Your task to perform on an android device: toggle notification dots Image 0: 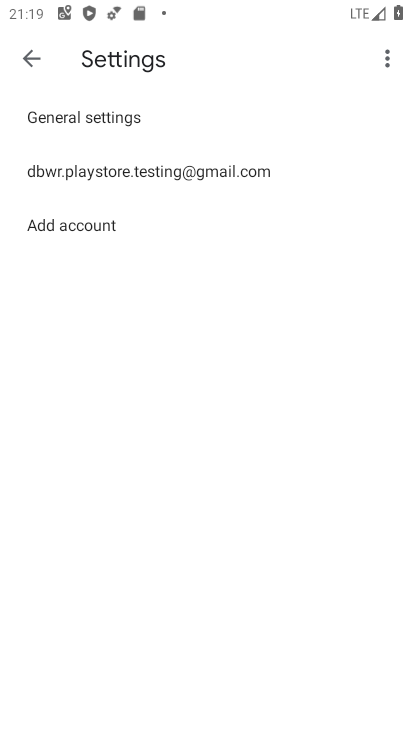
Step 0: press back button
Your task to perform on an android device: toggle notification dots Image 1: 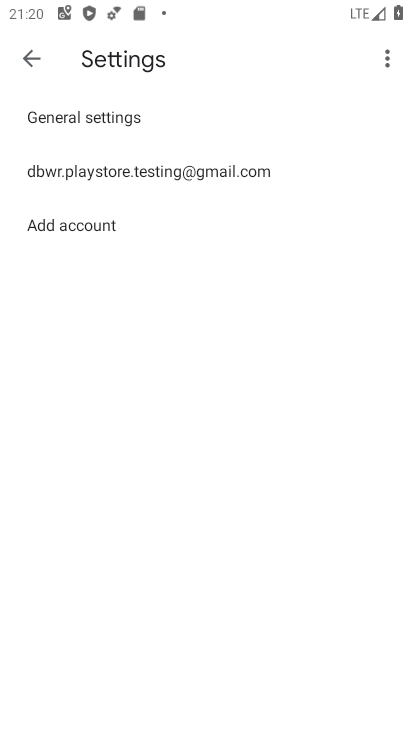
Step 1: press home button
Your task to perform on an android device: toggle notification dots Image 2: 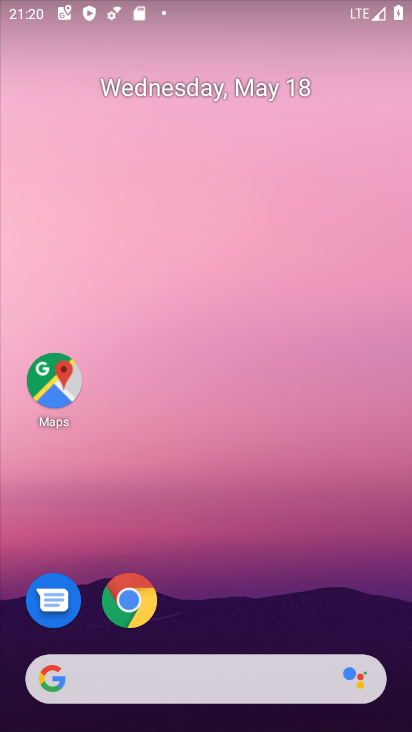
Step 2: drag from (191, 590) to (317, 4)
Your task to perform on an android device: toggle notification dots Image 3: 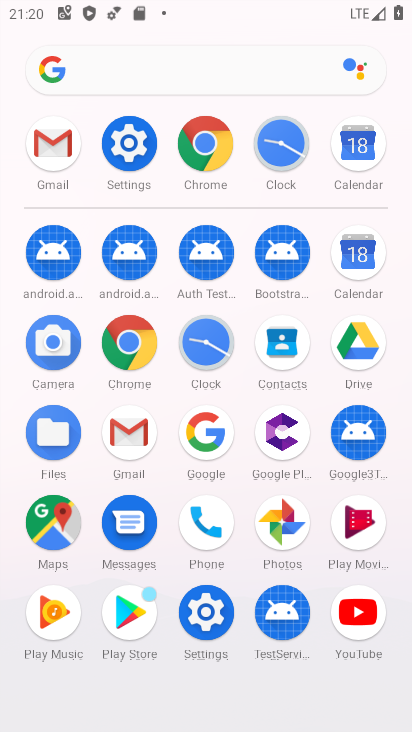
Step 3: click (122, 145)
Your task to perform on an android device: toggle notification dots Image 4: 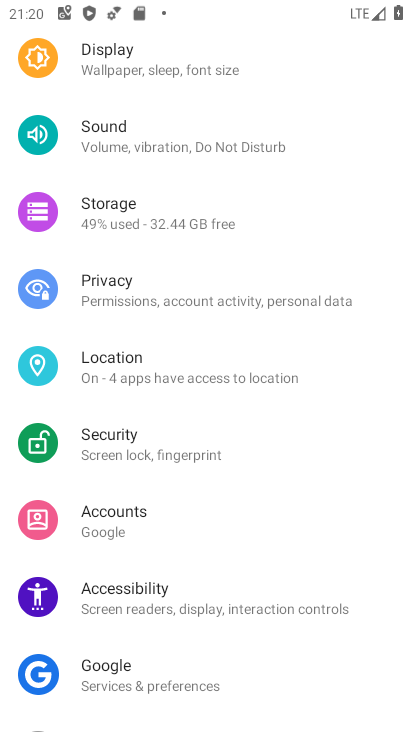
Step 4: drag from (228, 160) to (143, 687)
Your task to perform on an android device: toggle notification dots Image 5: 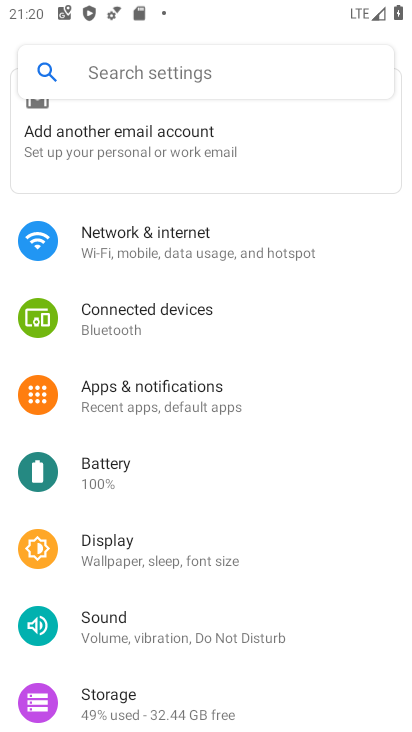
Step 5: click (148, 407)
Your task to perform on an android device: toggle notification dots Image 6: 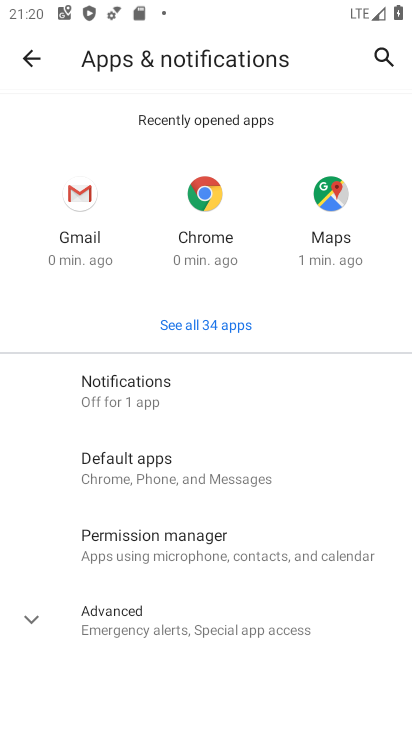
Step 6: click (164, 386)
Your task to perform on an android device: toggle notification dots Image 7: 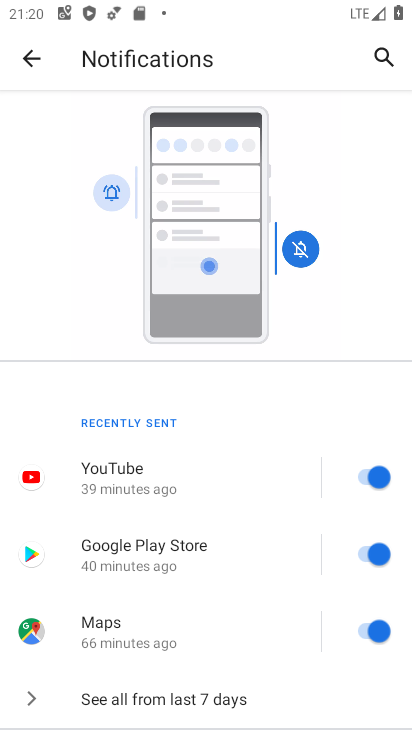
Step 7: drag from (164, 669) to (254, 231)
Your task to perform on an android device: toggle notification dots Image 8: 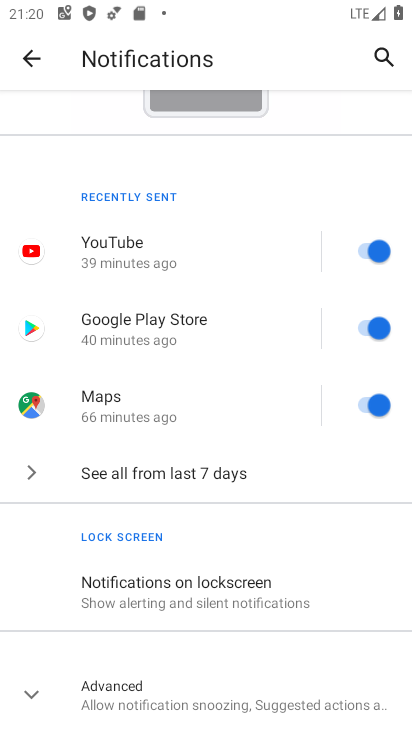
Step 8: drag from (187, 684) to (223, 256)
Your task to perform on an android device: toggle notification dots Image 9: 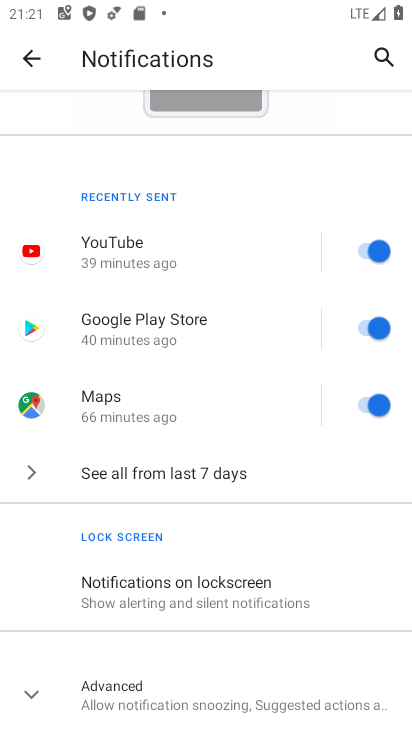
Step 9: drag from (182, 683) to (285, 230)
Your task to perform on an android device: toggle notification dots Image 10: 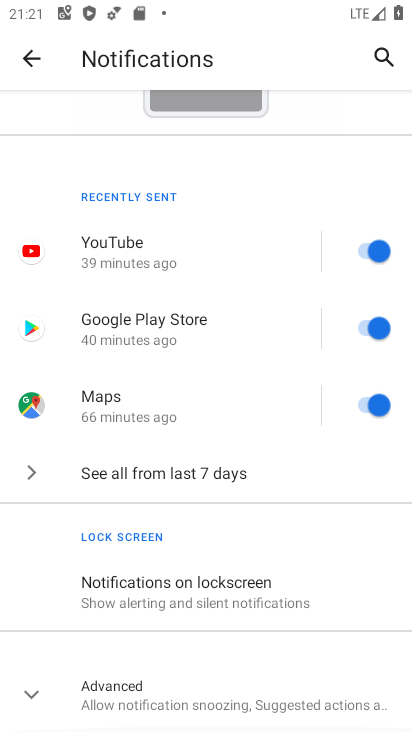
Step 10: click (119, 684)
Your task to perform on an android device: toggle notification dots Image 11: 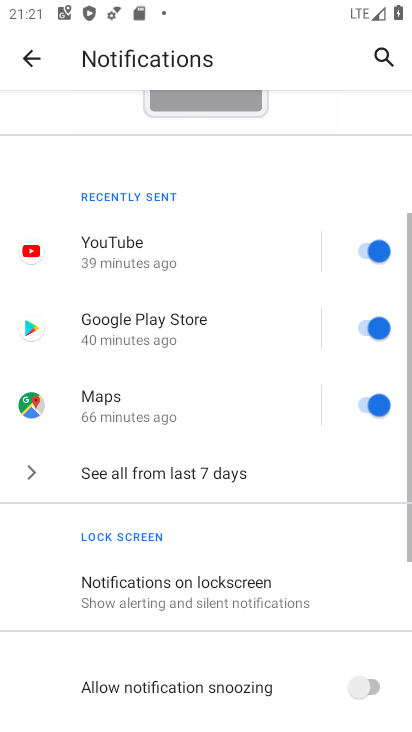
Step 11: drag from (246, 664) to (287, 227)
Your task to perform on an android device: toggle notification dots Image 12: 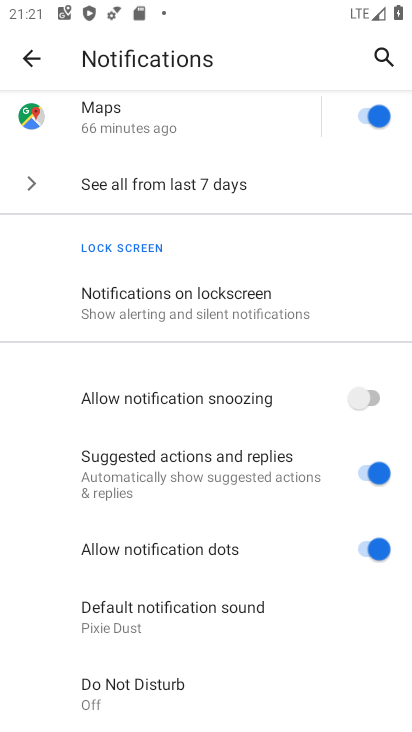
Step 12: click (363, 546)
Your task to perform on an android device: toggle notification dots Image 13: 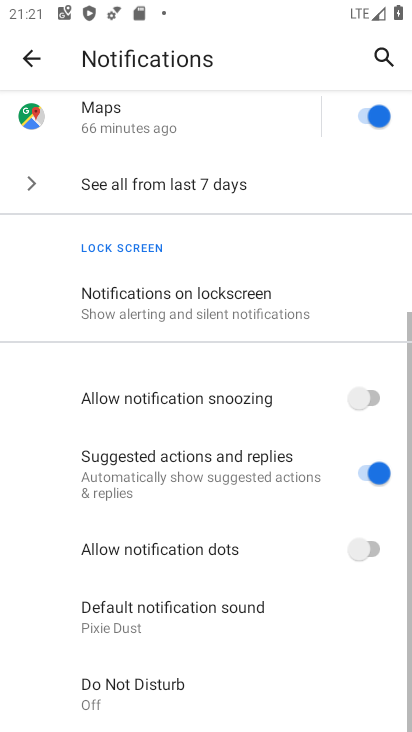
Step 13: task complete